Your task to perform on an android device: Open Amazon Image 0: 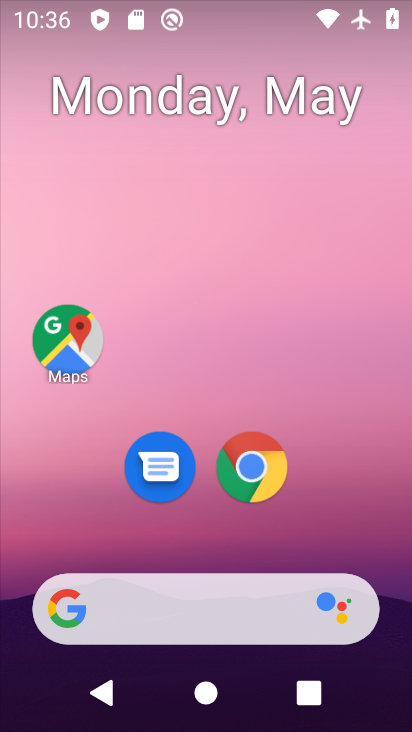
Step 0: click (248, 472)
Your task to perform on an android device: Open Amazon Image 1: 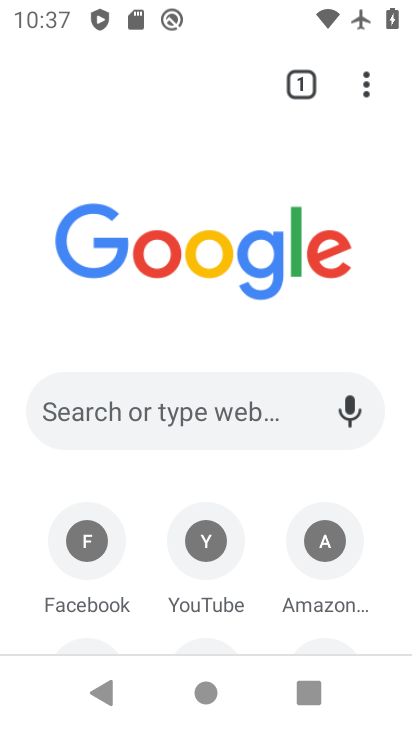
Step 1: click (321, 549)
Your task to perform on an android device: Open Amazon Image 2: 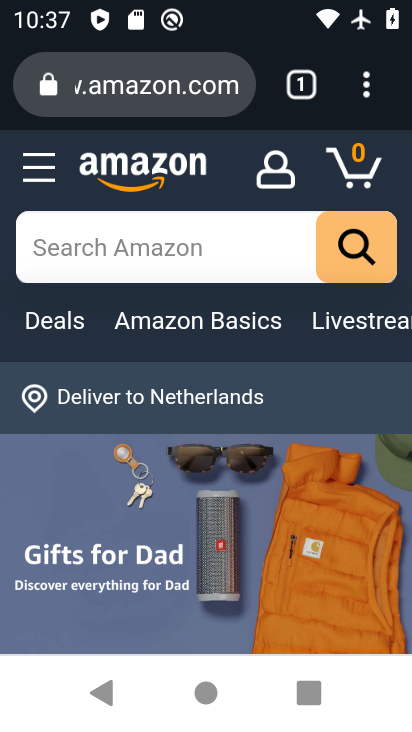
Step 2: task complete